Your task to perform on an android device: turn on notifications settings in the gmail app Image 0: 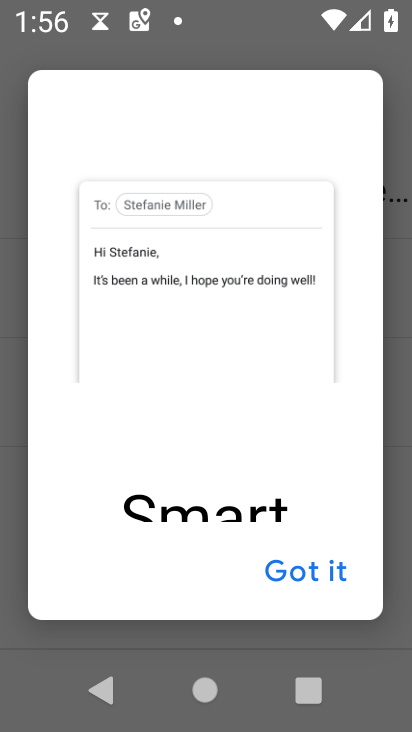
Step 0: press home button
Your task to perform on an android device: turn on notifications settings in the gmail app Image 1: 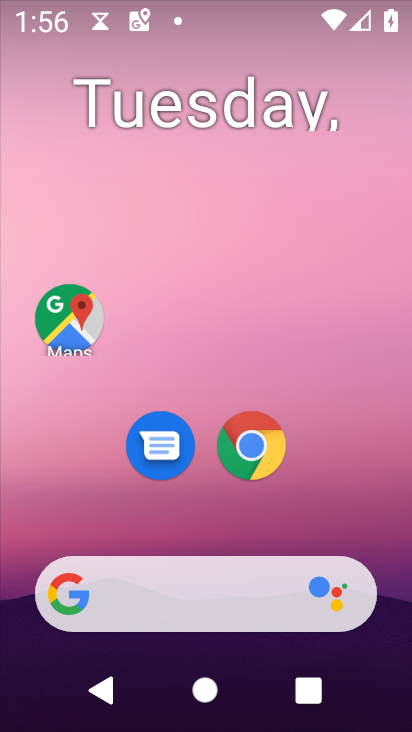
Step 1: drag from (306, 597) to (380, 21)
Your task to perform on an android device: turn on notifications settings in the gmail app Image 2: 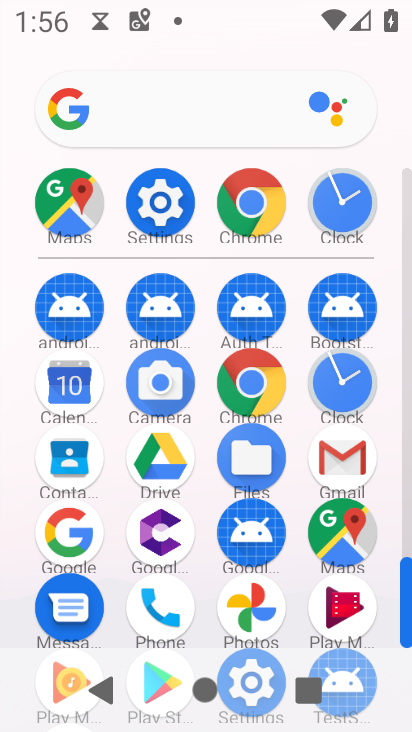
Step 2: click (341, 461)
Your task to perform on an android device: turn on notifications settings in the gmail app Image 3: 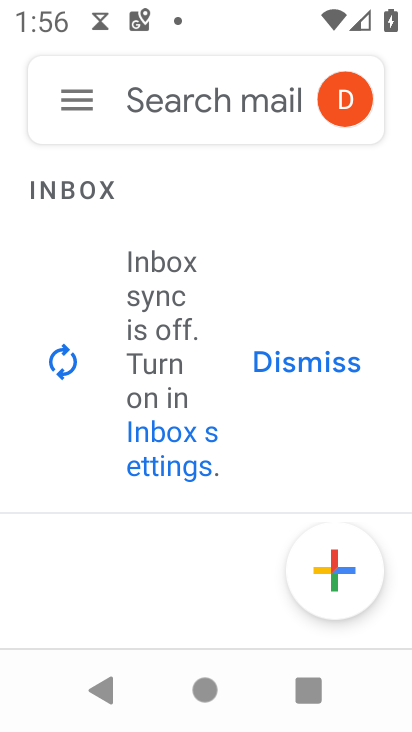
Step 3: click (59, 95)
Your task to perform on an android device: turn on notifications settings in the gmail app Image 4: 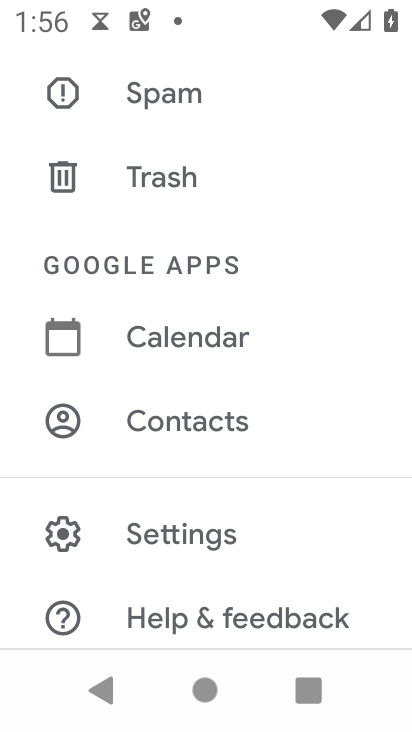
Step 4: drag from (162, 605) to (223, 344)
Your task to perform on an android device: turn on notifications settings in the gmail app Image 5: 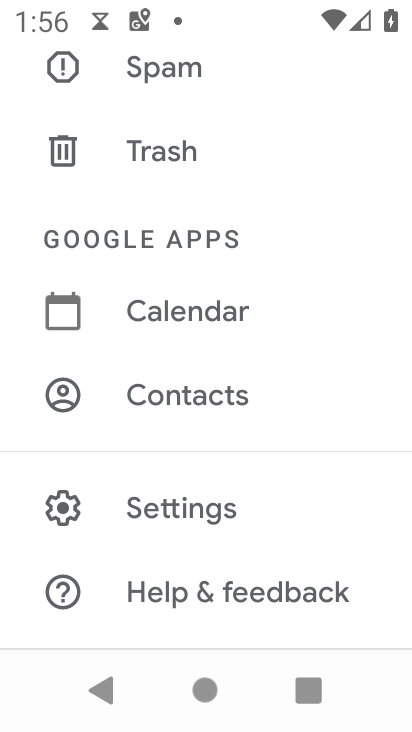
Step 5: click (234, 513)
Your task to perform on an android device: turn on notifications settings in the gmail app Image 6: 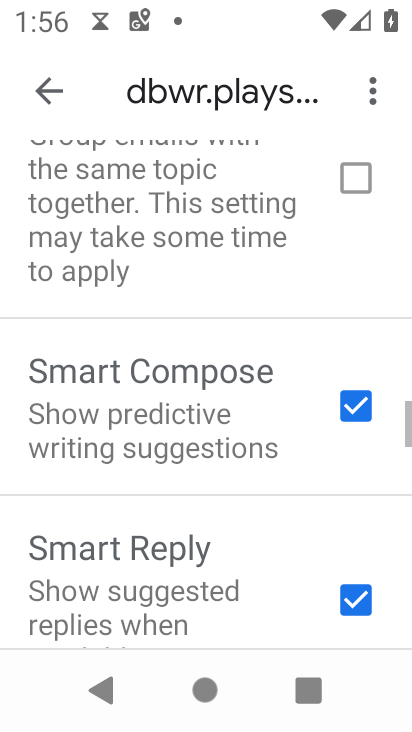
Step 6: drag from (211, 596) to (265, 140)
Your task to perform on an android device: turn on notifications settings in the gmail app Image 7: 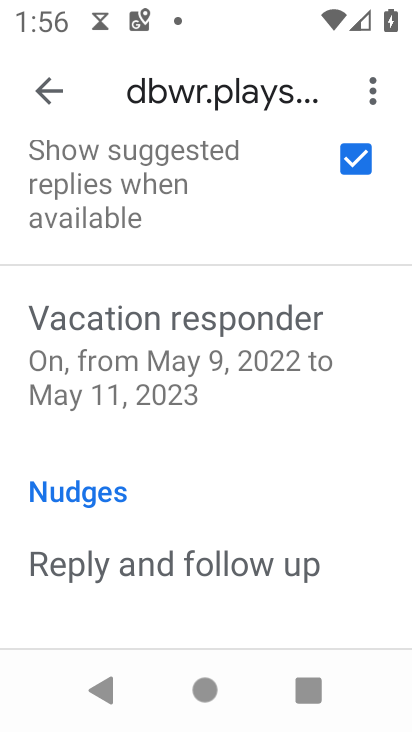
Step 7: drag from (252, 211) to (246, 661)
Your task to perform on an android device: turn on notifications settings in the gmail app Image 8: 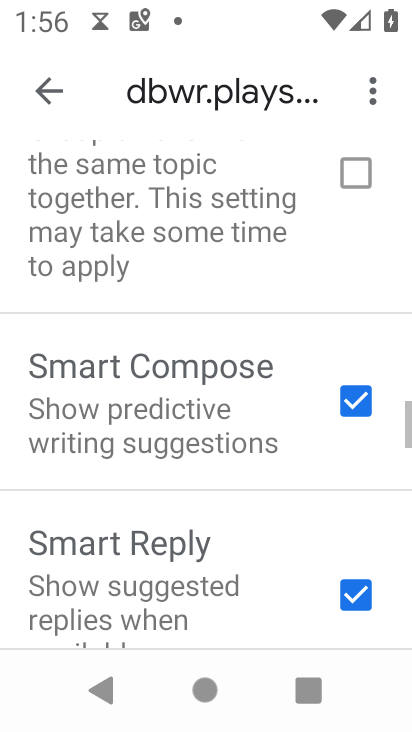
Step 8: drag from (242, 238) to (277, 601)
Your task to perform on an android device: turn on notifications settings in the gmail app Image 9: 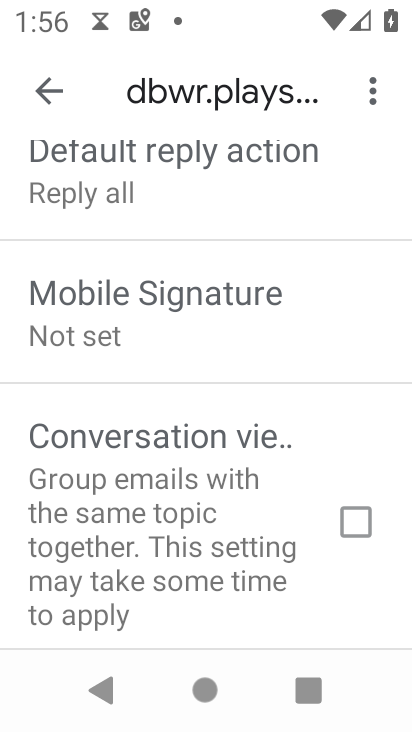
Step 9: drag from (289, 324) to (282, 535)
Your task to perform on an android device: turn on notifications settings in the gmail app Image 10: 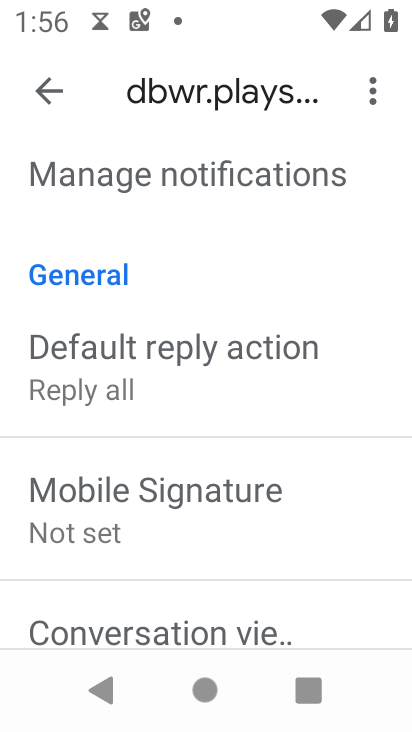
Step 10: drag from (279, 280) to (274, 518)
Your task to perform on an android device: turn on notifications settings in the gmail app Image 11: 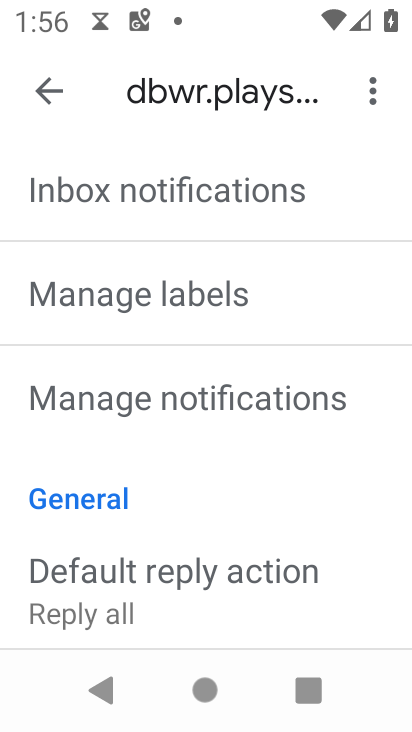
Step 11: click (226, 396)
Your task to perform on an android device: turn on notifications settings in the gmail app Image 12: 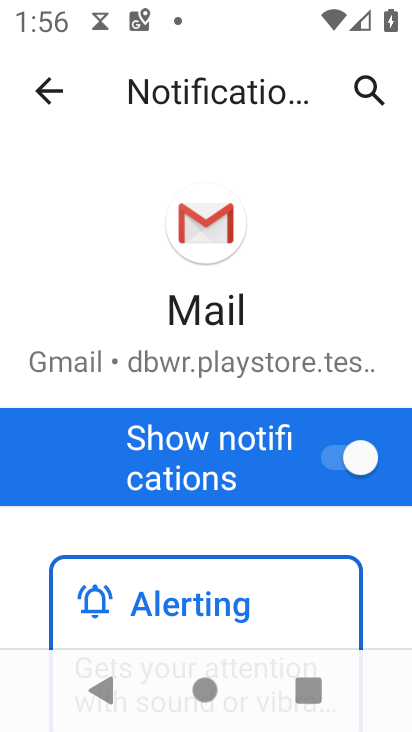
Step 12: task complete